Your task to perform on an android device: Go to Wikipedia Image 0: 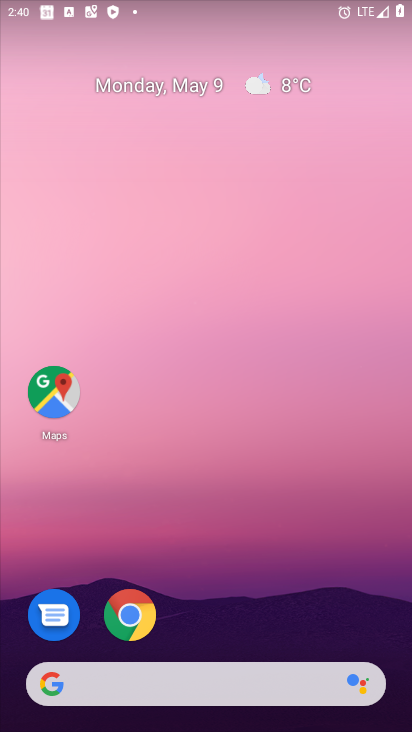
Step 0: click (131, 614)
Your task to perform on an android device: Go to Wikipedia Image 1: 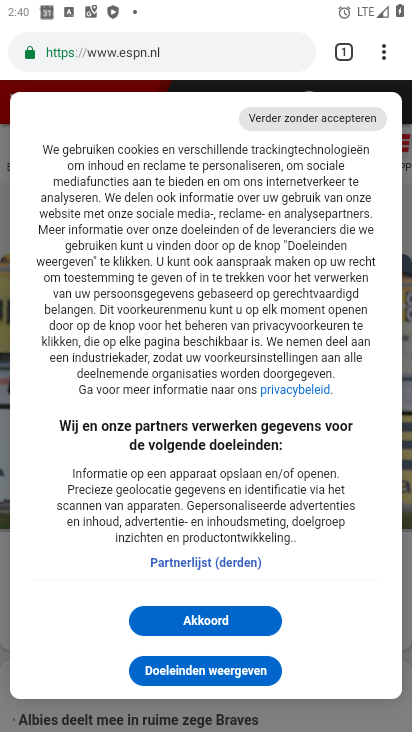
Step 1: click (384, 57)
Your task to perform on an android device: Go to Wikipedia Image 2: 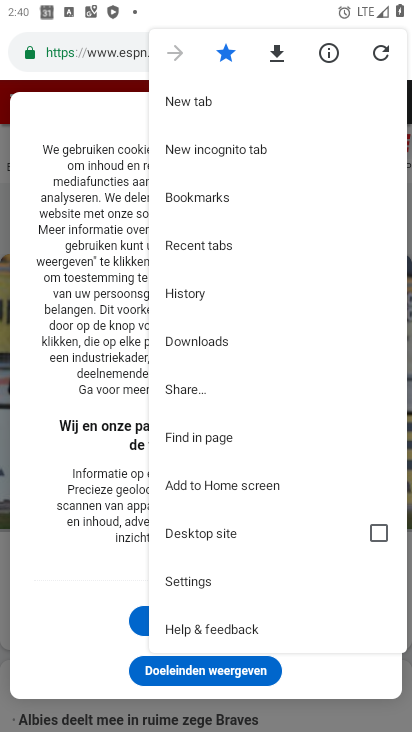
Step 2: click (192, 97)
Your task to perform on an android device: Go to Wikipedia Image 3: 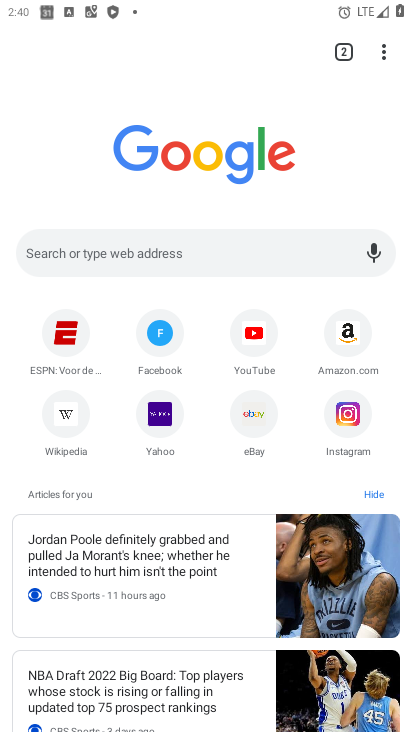
Step 3: click (63, 411)
Your task to perform on an android device: Go to Wikipedia Image 4: 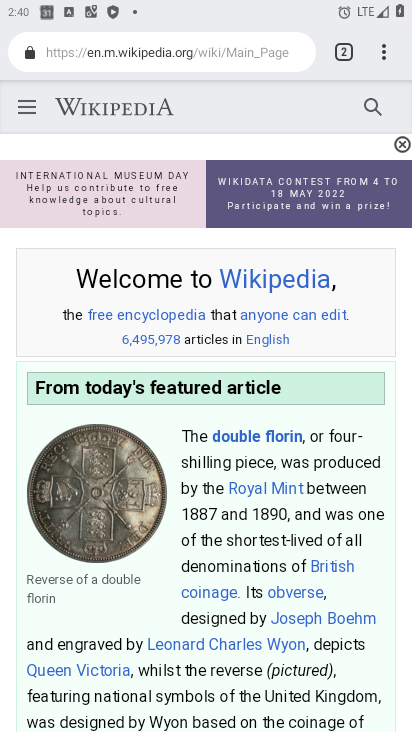
Step 4: task complete